Your task to perform on an android device: Search for "razer naga" on target.com, select the first entry, add it to the cart, then select checkout. Image 0: 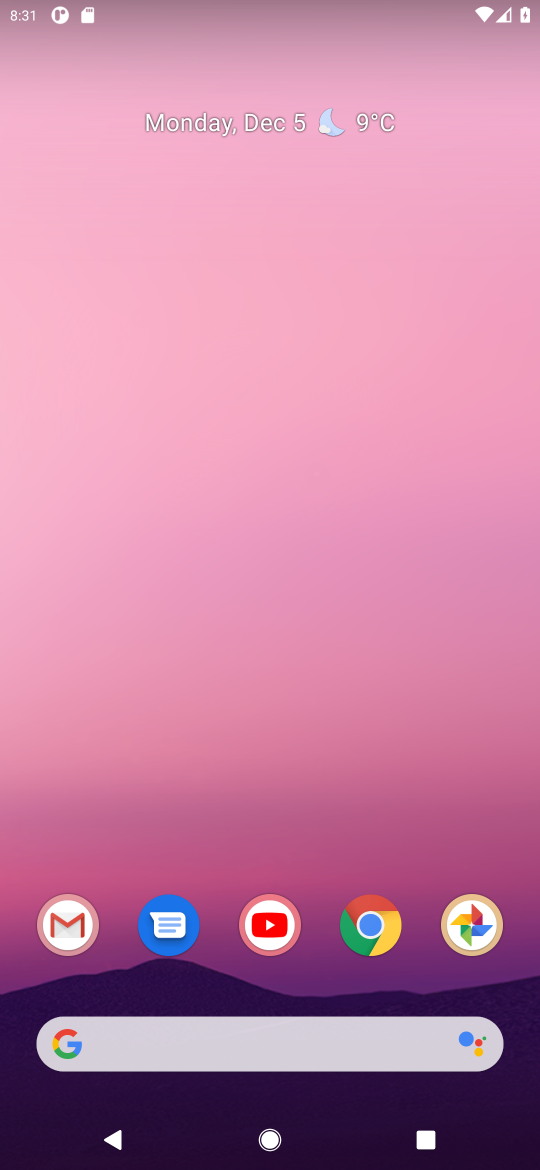
Step 0: click (366, 916)
Your task to perform on an android device: Search for "razer naga" on target.com, select the first entry, add it to the cart, then select checkout. Image 1: 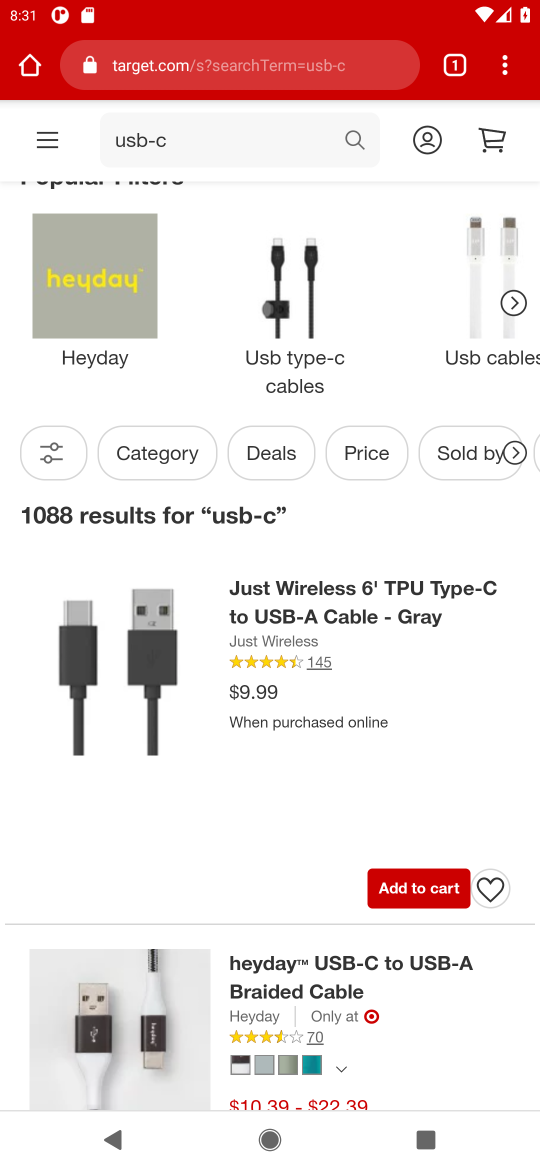
Step 1: click (207, 71)
Your task to perform on an android device: Search for "razer naga" on target.com, select the first entry, add it to the cart, then select checkout. Image 2: 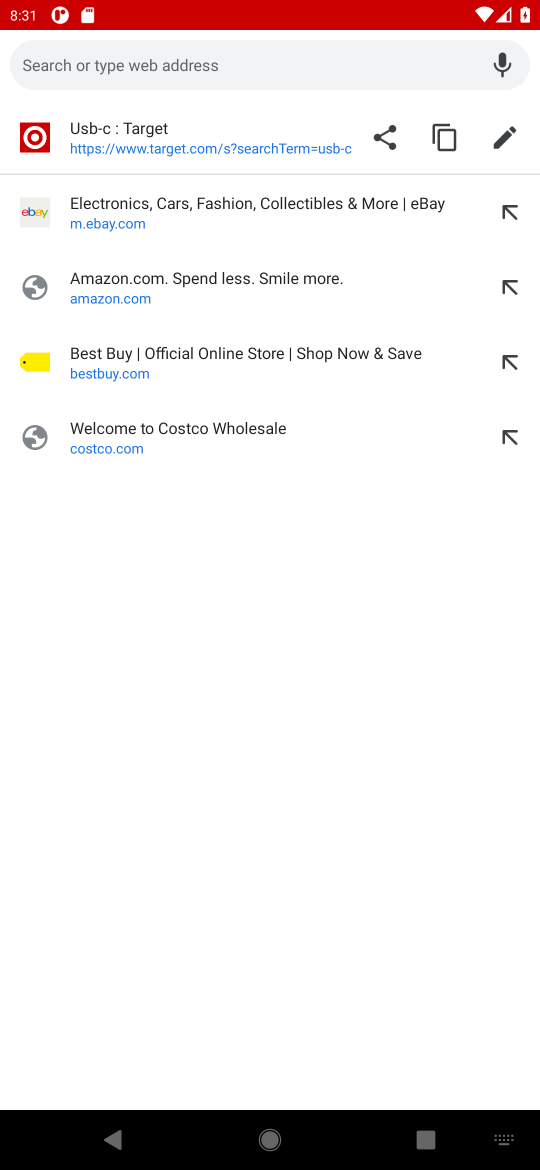
Step 2: type "target.com"
Your task to perform on an android device: Search for "razer naga" on target.com, select the first entry, add it to the cart, then select checkout. Image 3: 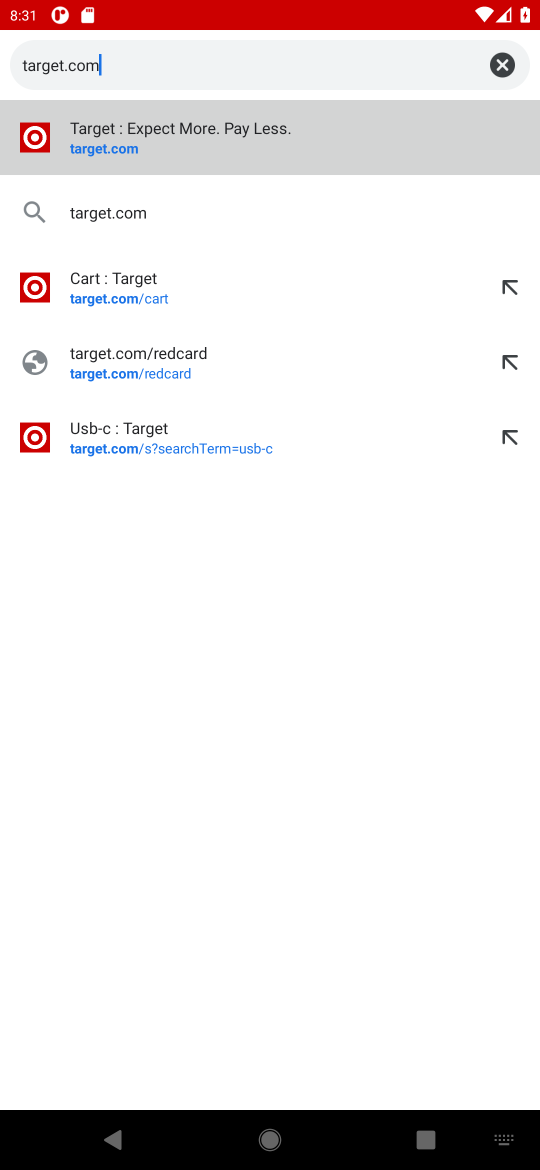
Step 3: click (114, 149)
Your task to perform on an android device: Search for "razer naga" on target.com, select the first entry, add it to the cart, then select checkout. Image 4: 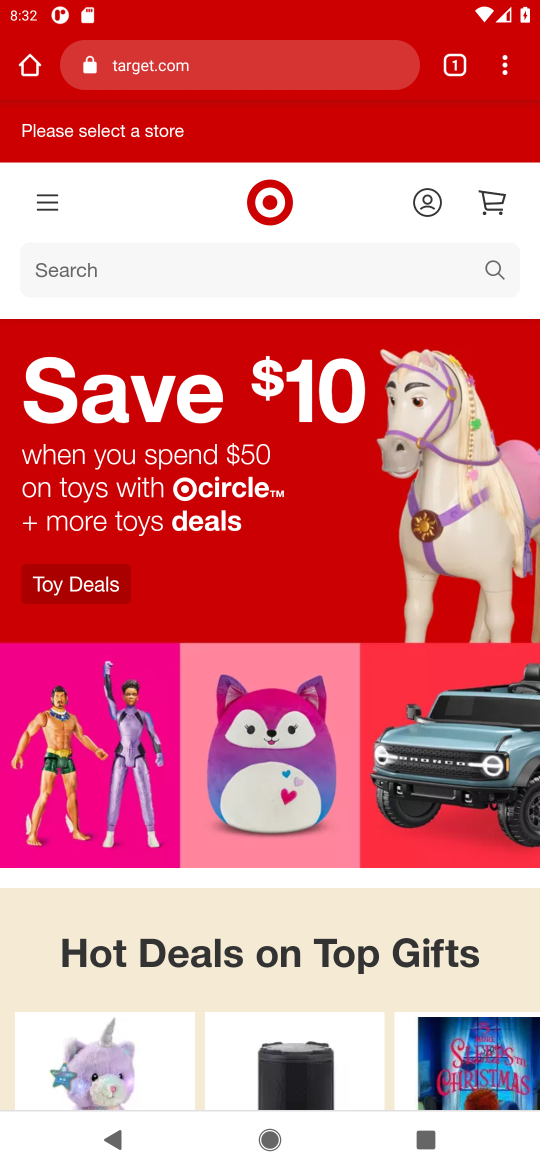
Step 4: click (84, 273)
Your task to perform on an android device: Search for "razer naga" on target.com, select the first entry, add it to the cart, then select checkout. Image 5: 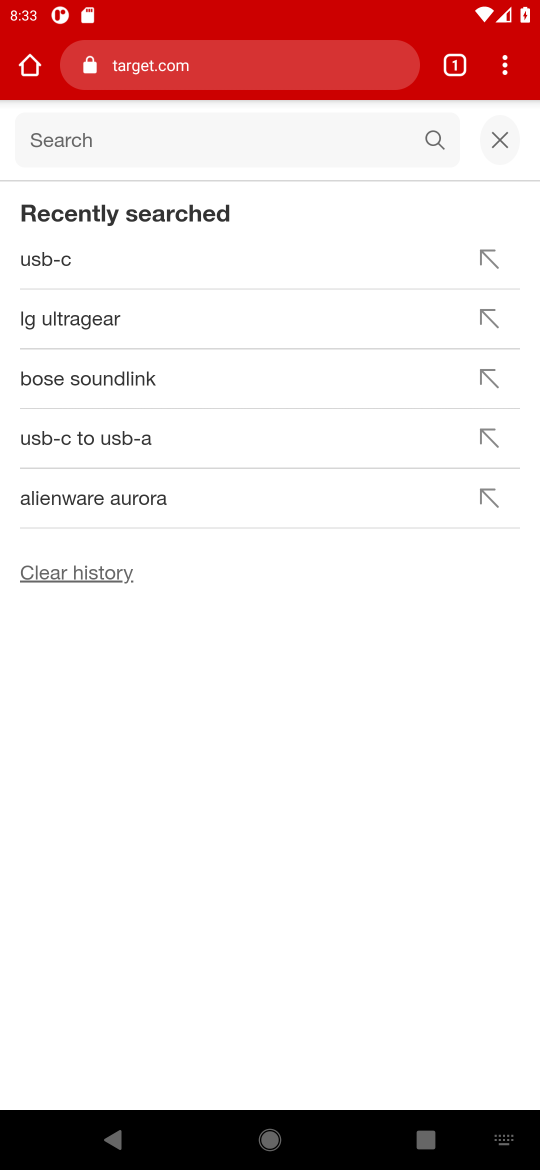
Step 5: click (70, 131)
Your task to perform on an android device: Search for "razer naga" on target.com, select the first entry, add it to the cart, then select checkout. Image 6: 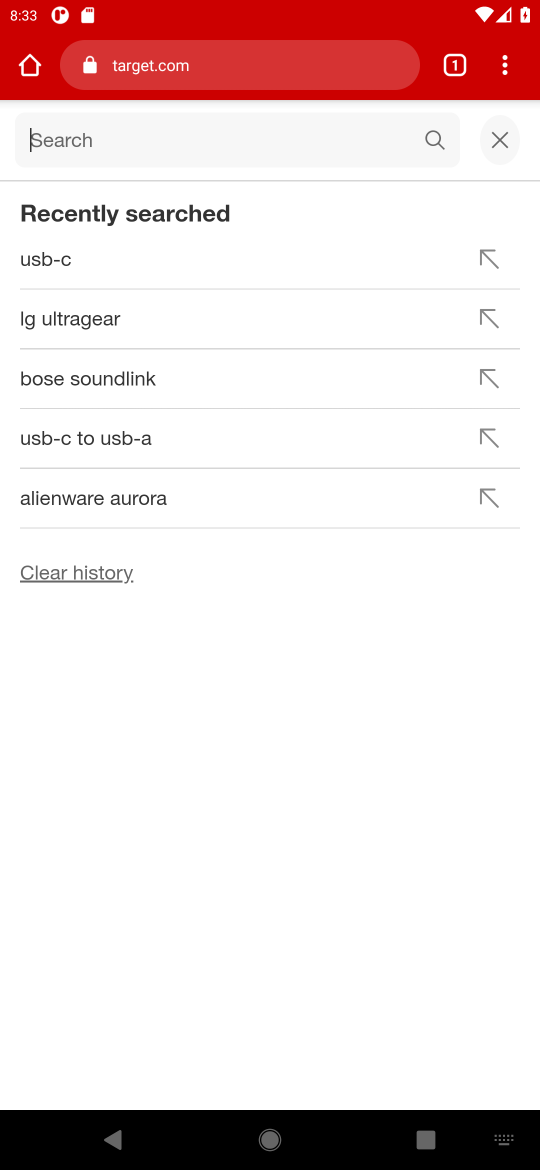
Step 6: type "razer naga"
Your task to perform on an android device: Search for "razer naga" on target.com, select the first entry, add it to the cart, then select checkout. Image 7: 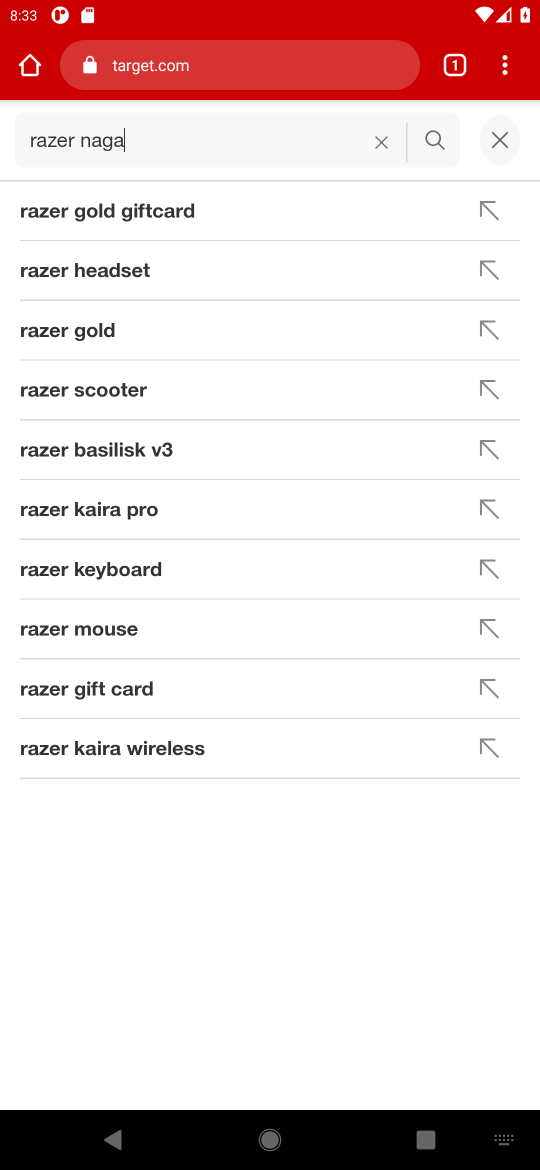
Step 7: click (433, 145)
Your task to perform on an android device: Search for "razer naga" on target.com, select the first entry, add it to the cart, then select checkout. Image 8: 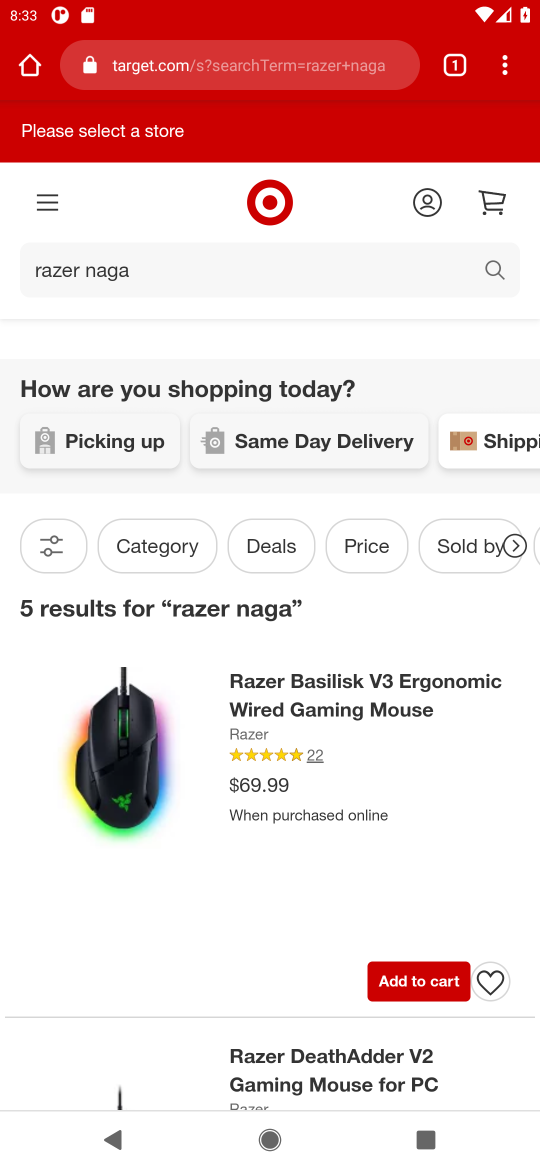
Step 8: task complete